Your task to perform on an android device: toggle notification dots Image 0: 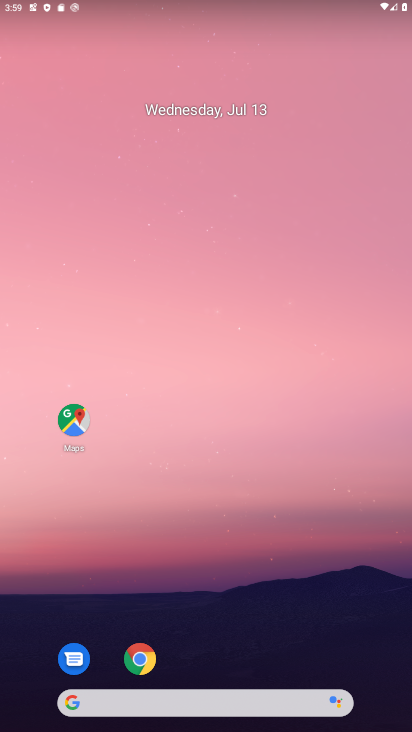
Step 0: drag from (239, 599) to (245, 59)
Your task to perform on an android device: toggle notification dots Image 1: 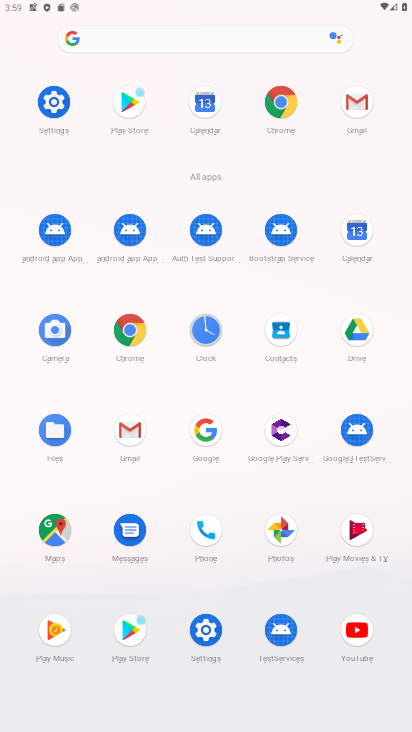
Step 1: click (50, 96)
Your task to perform on an android device: toggle notification dots Image 2: 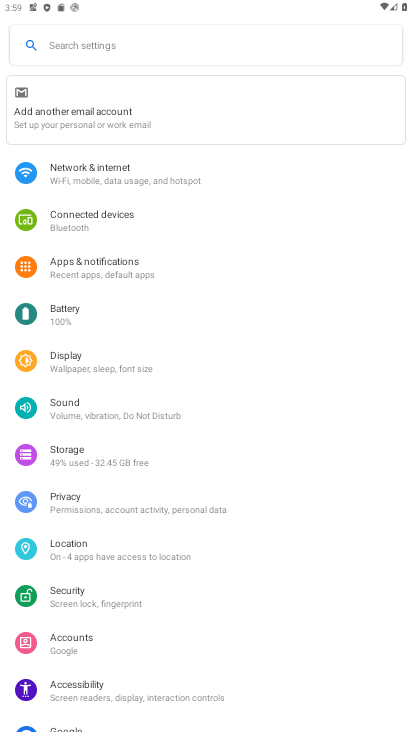
Step 2: click (133, 256)
Your task to perform on an android device: toggle notification dots Image 3: 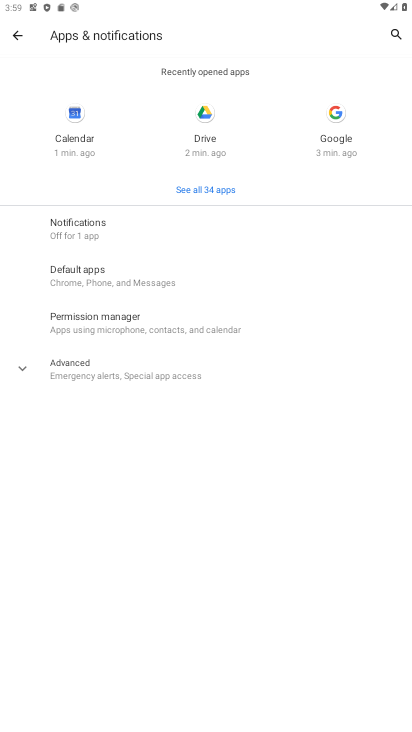
Step 3: click (113, 224)
Your task to perform on an android device: toggle notification dots Image 4: 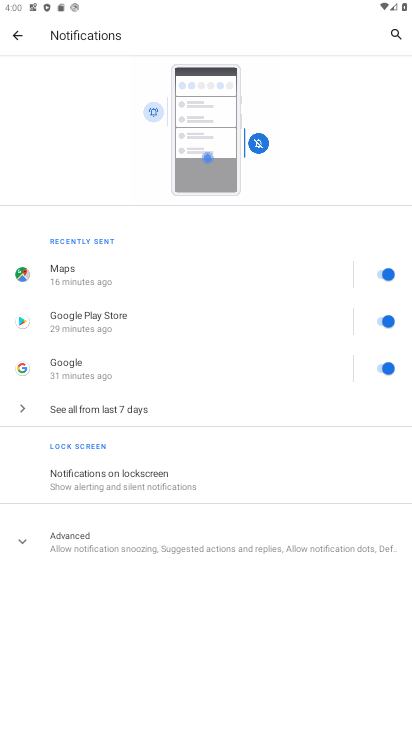
Step 4: click (99, 537)
Your task to perform on an android device: toggle notification dots Image 5: 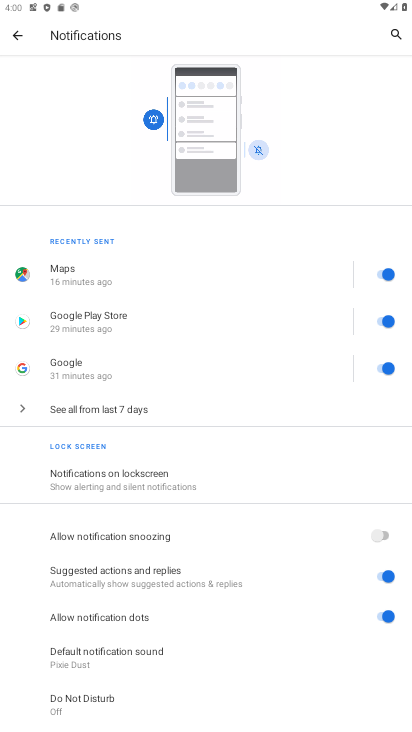
Step 5: click (387, 610)
Your task to perform on an android device: toggle notification dots Image 6: 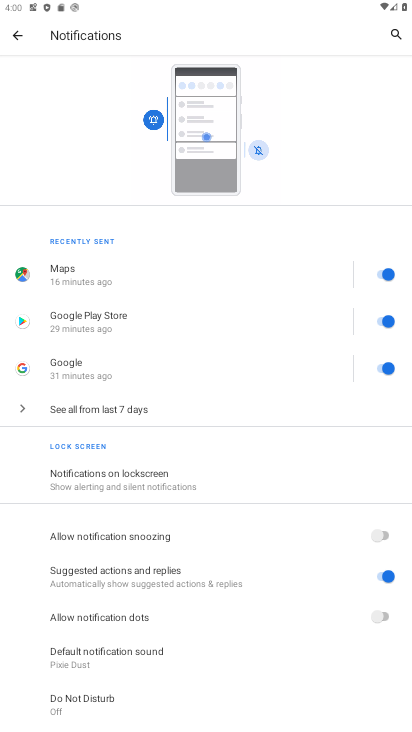
Step 6: task complete